Your task to perform on an android device: turn on translation in the chrome app Image 0: 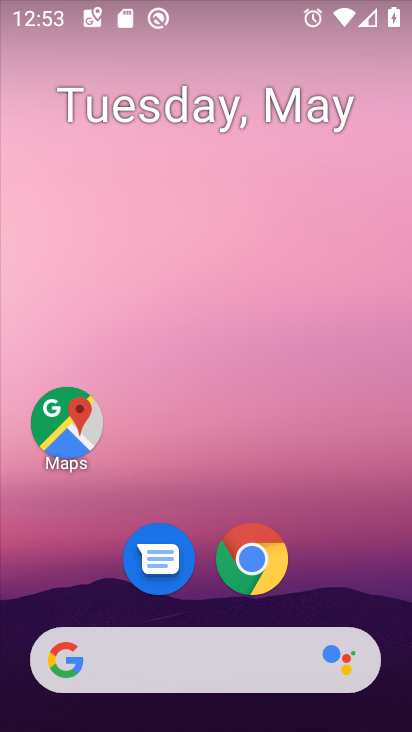
Step 0: click (261, 573)
Your task to perform on an android device: turn on translation in the chrome app Image 1: 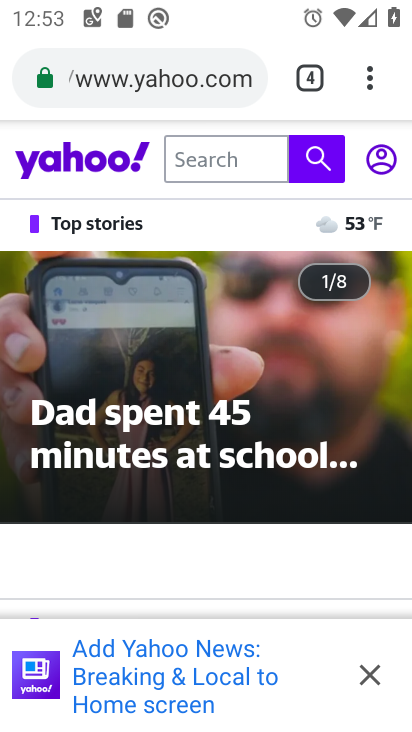
Step 1: click (380, 78)
Your task to perform on an android device: turn on translation in the chrome app Image 2: 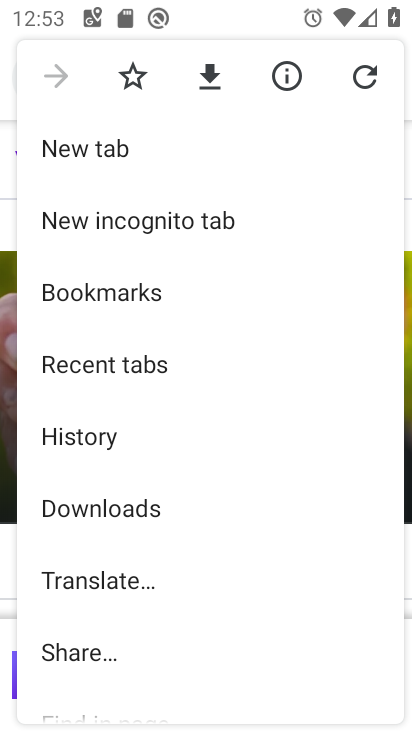
Step 2: drag from (231, 663) to (171, 163)
Your task to perform on an android device: turn on translation in the chrome app Image 3: 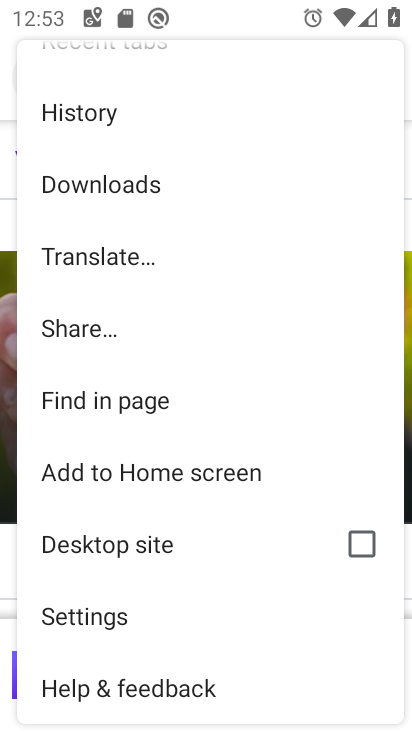
Step 3: click (164, 610)
Your task to perform on an android device: turn on translation in the chrome app Image 4: 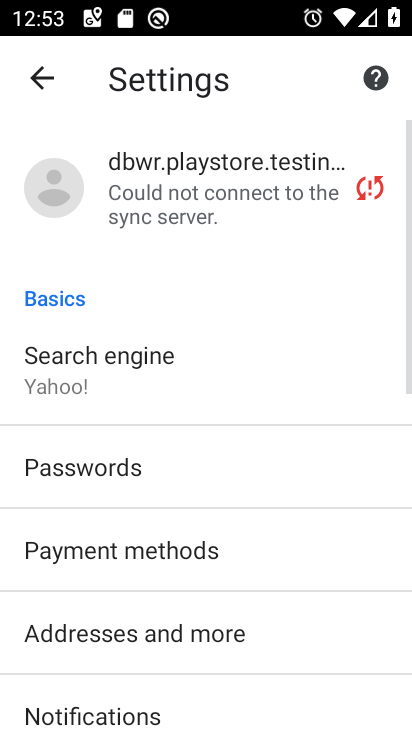
Step 4: drag from (164, 610) to (134, 109)
Your task to perform on an android device: turn on translation in the chrome app Image 5: 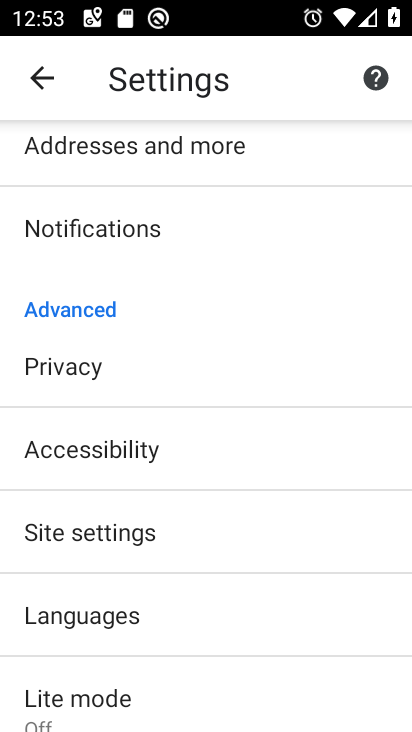
Step 5: click (185, 626)
Your task to perform on an android device: turn on translation in the chrome app Image 6: 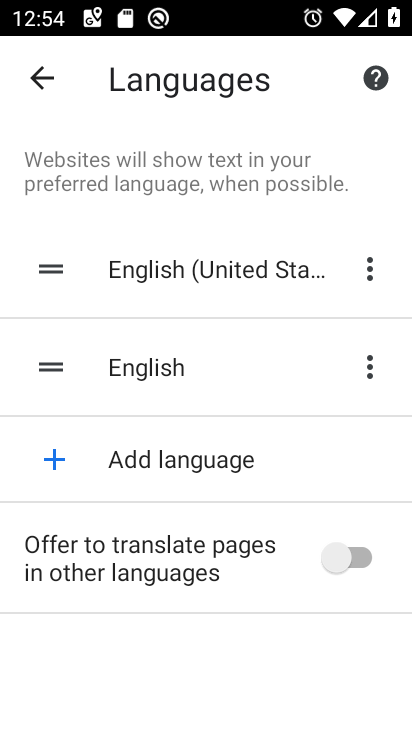
Step 6: click (374, 567)
Your task to perform on an android device: turn on translation in the chrome app Image 7: 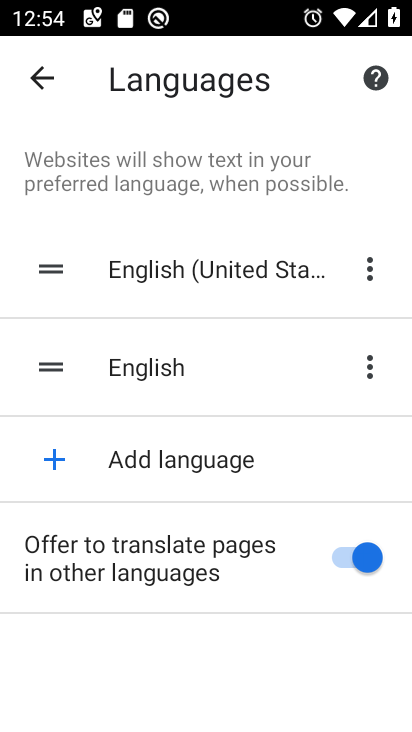
Step 7: task complete